Your task to perform on an android device: What's a good restaurant in Seattle? Image 0: 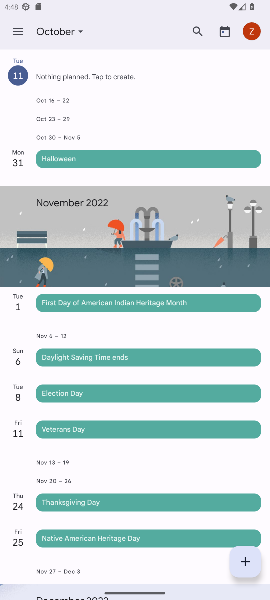
Step 0: press home button
Your task to perform on an android device: What's a good restaurant in Seattle? Image 1: 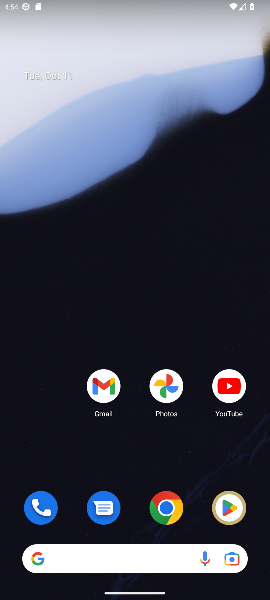
Step 1: task complete